Your task to perform on an android device: turn off notifications settings in the gmail app Image 0: 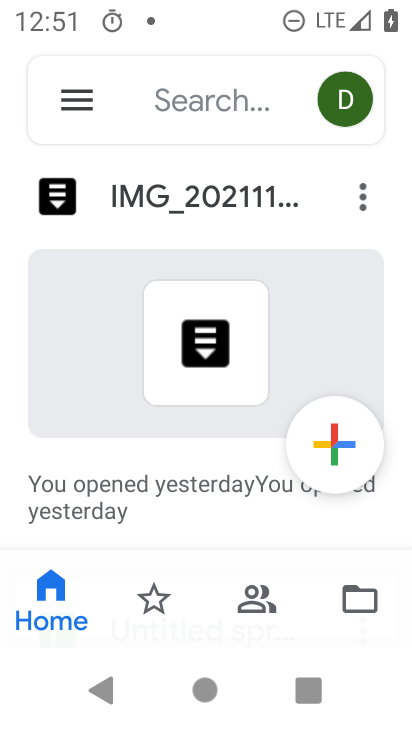
Step 0: press home button
Your task to perform on an android device: turn off notifications settings in the gmail app Image 1: 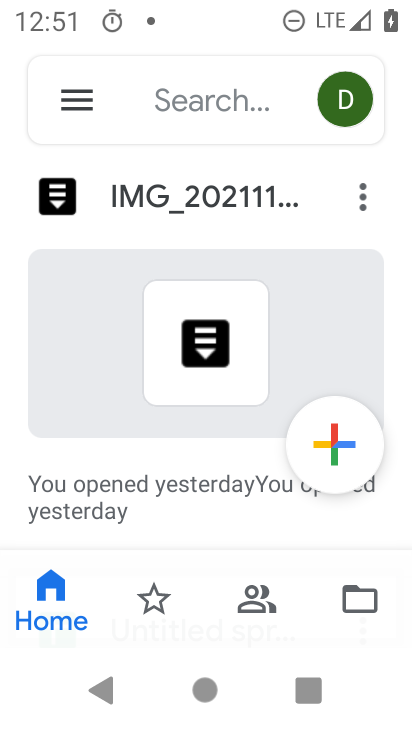
Step 1: drag from (229, 331) to (259, 138)
Your task to perform on an android device: turn off notifications settings in the gmail app Image 2: 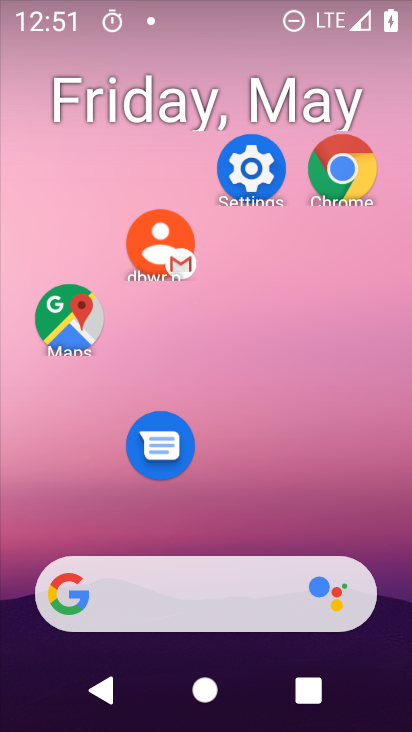
Step 2: drag from (229, 534) to (232, 38)
Your task to perform on an android device: turn off notifications settings in the gmail app Image 3: 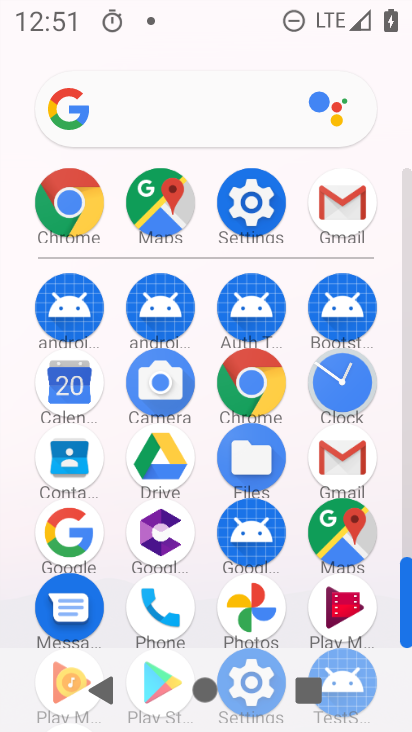
Step 3: click (335, 467)
Your task to perform on an android device: turn off notifications settings in the gmail app Image 4: 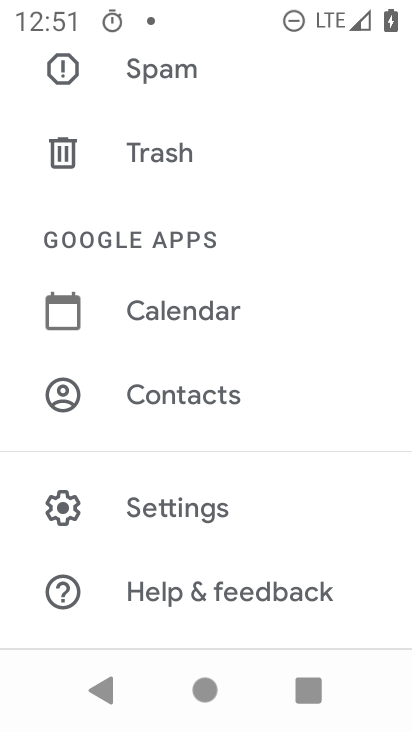
Step 4: click (166, 507)
Your task to perform on an android device: turn off notifications settings in the gmail app Image 5: 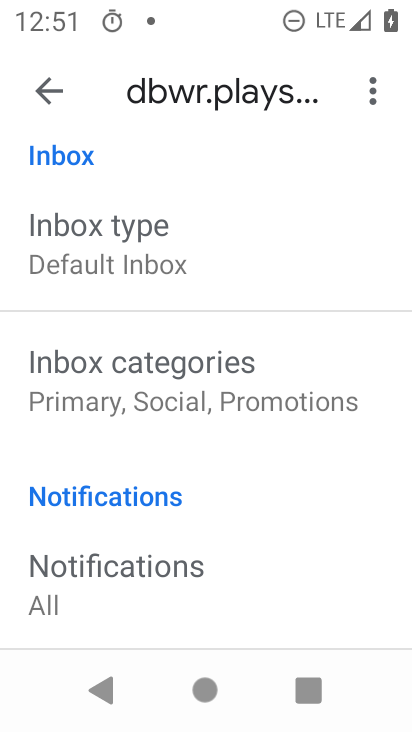
Step 5: click (124, 265)
Your task to perform on an android device: turn off notifications settings in the gmail app Image 6: 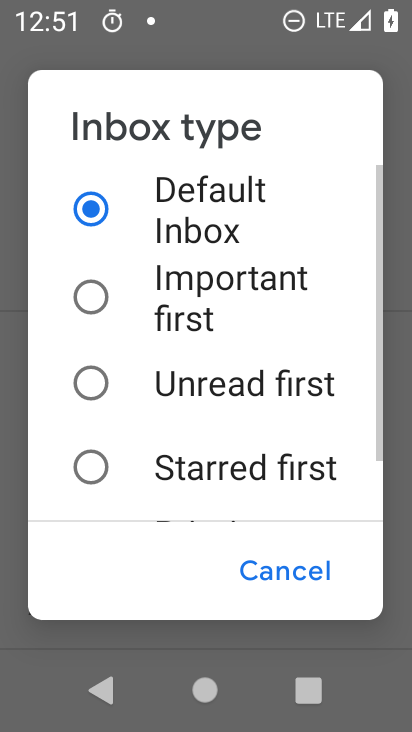
Step 6: click (291, 607)
Your task to perform on an android device: turn off notifications settings in the gmail app Image 7: 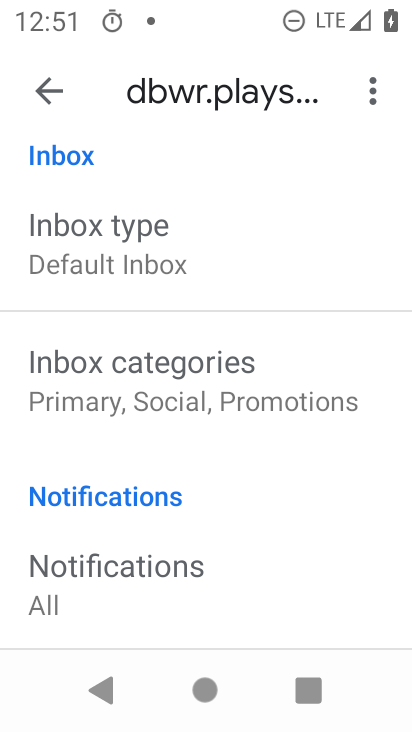
Step 7: drag from (123, 505) to (213, 73)
Your task to perform on an android device: turn off notifications settings in the gmail app Image 8: 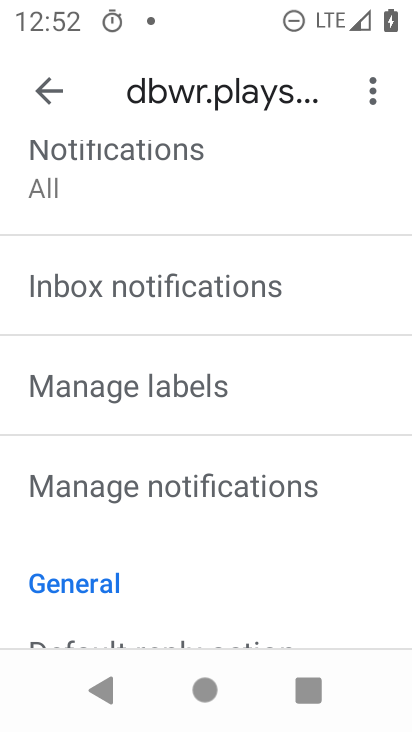
Step 8: click (198, 506)
Your task to perform on an android device: turn off notifications settings in the gmail app Image 9: 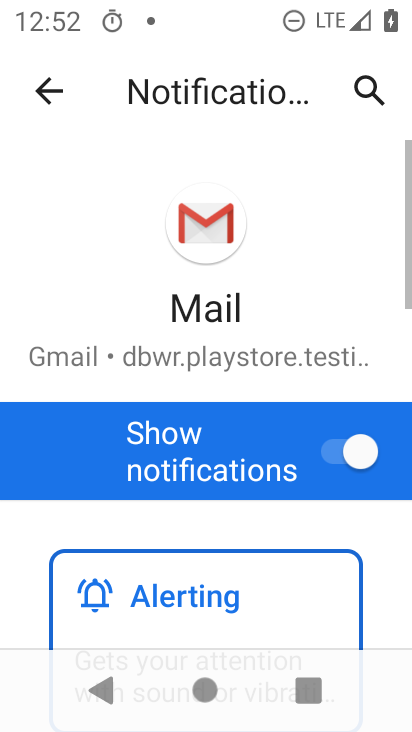
Step 9: drag from (234, 528) to (322, 148)
Your task to perform on an android device: turn off notifications settings in the gmail app Image 10: 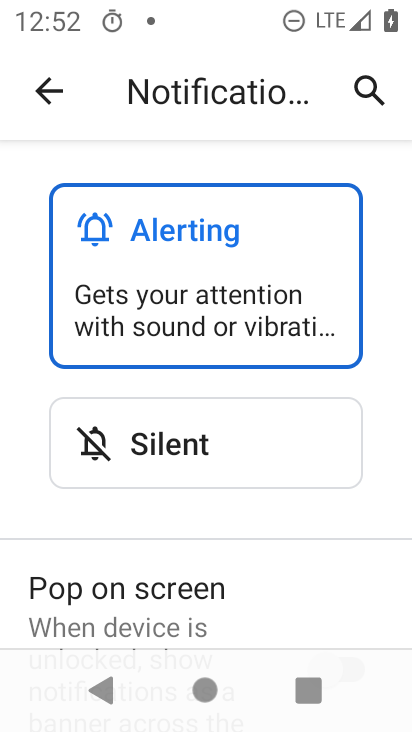
Step 10: drag from (336, 212) to (366, 519)
Your task to perform on an android device: turn off notifications settings in the gmail app Image 11: 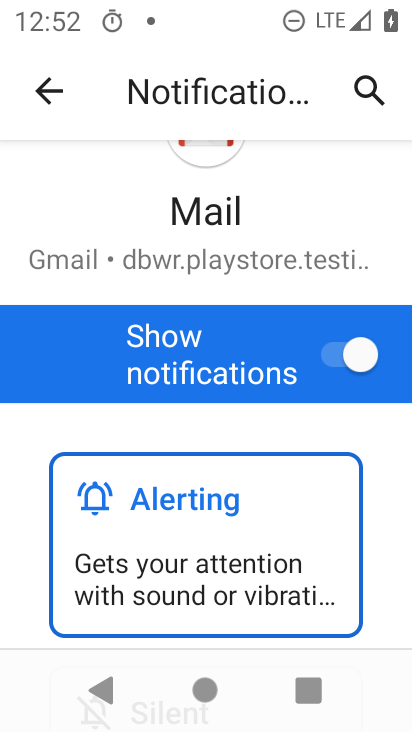
Step 11: click (355, 350)
Your task to perform on an android device: turn off notifications settings in the gmail app Image 12: 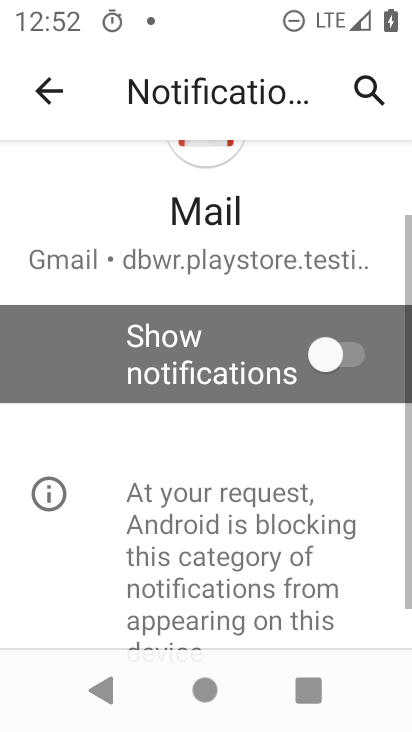
Step 12: task complete